Your task to perform on an android device: toggle show notifications on the lock screen Image 0: 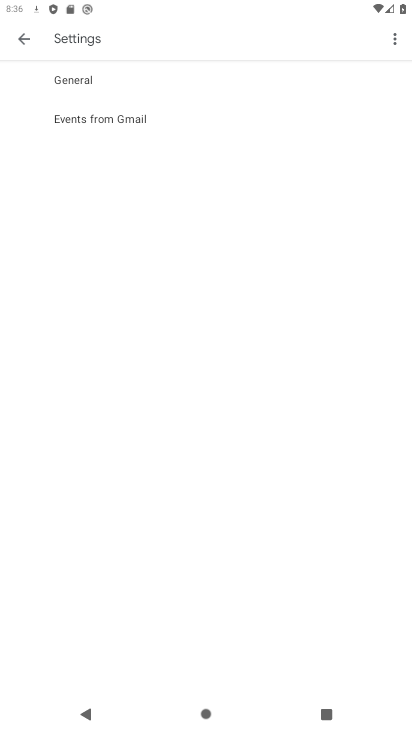
Step 0: press home button
Your task to perform on an android device: toggle show notifications on the lock screen Image 1: 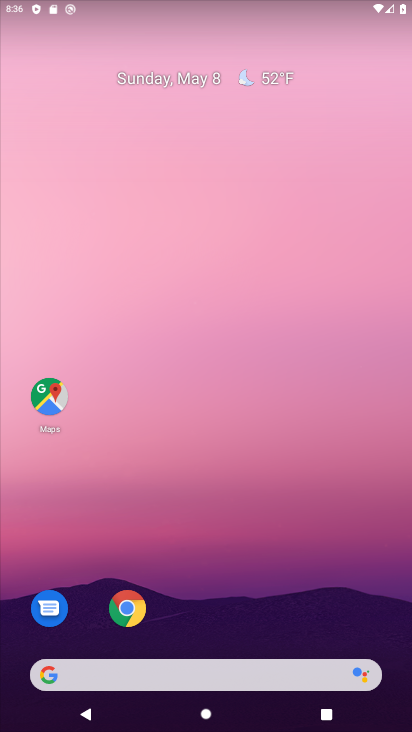
Step 1: drag from (201, 549) to (203, 4)
Your task to perform on an android device: toggle show notifications on the lock screen Image 2: 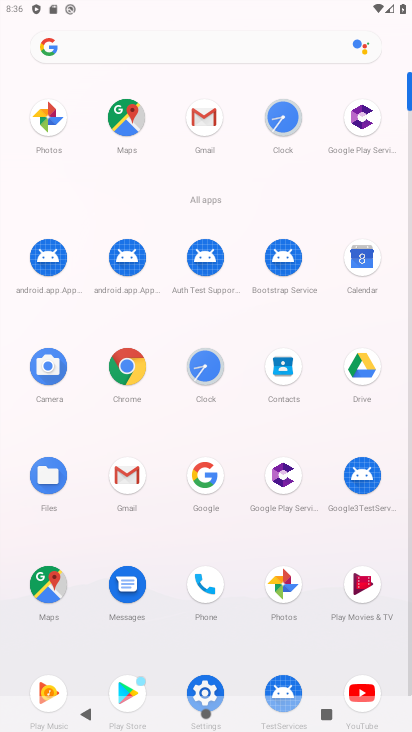
Step 2: drag from (170, 220) to (150, 74)
Your task to perform on an android device: toggle show notifications on the lock screen Image 3: 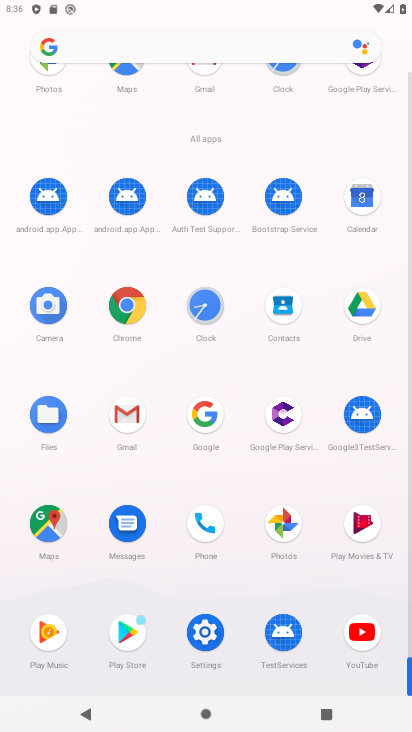
Step 3: click (211, 640)
Your task to perform on an android device: toggle show notifications on the lock screen Image 4: 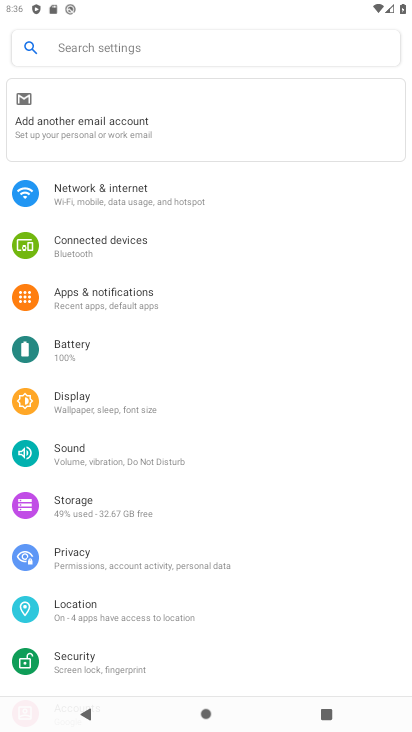
Step 4: click (143, 298)
Your task to perform on an android device: toggle show notifications on the lock screen Image 5: 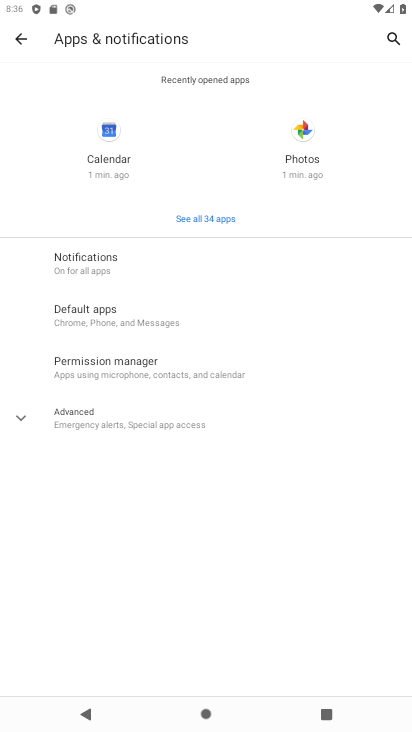
Step 5: click (113, 261)
Your task to perform on an android device: toggle show notifications on the lock screen Image 6: 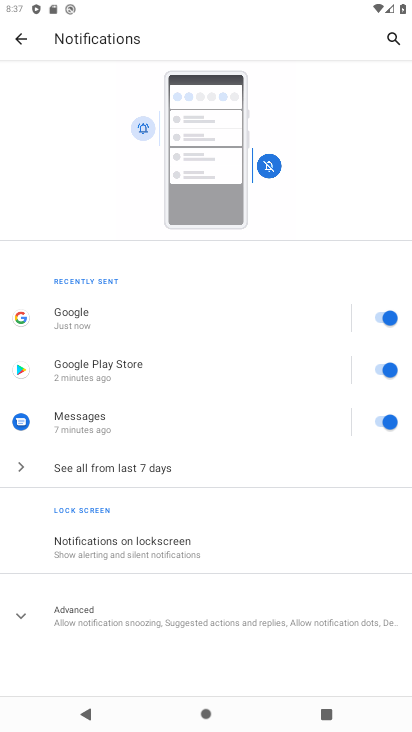
Step 6: click (112, 554)
Your task to perform on an android device: toggle show notifications on the lock screen Image 7: 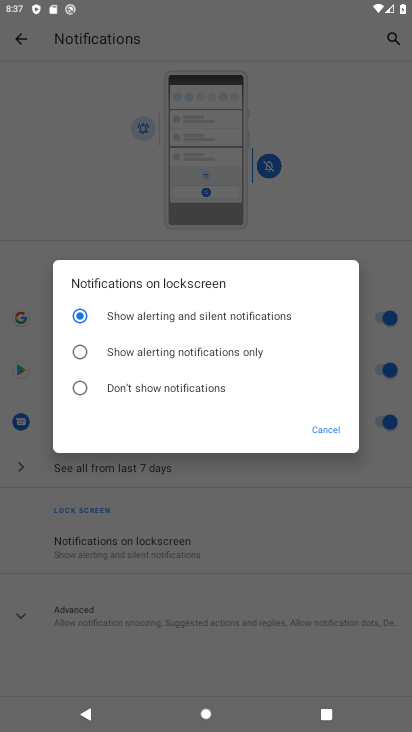
Step 7: click (184, 390)
Your task to perform on an android device: toggle show notifications on the lock screen Image 8: 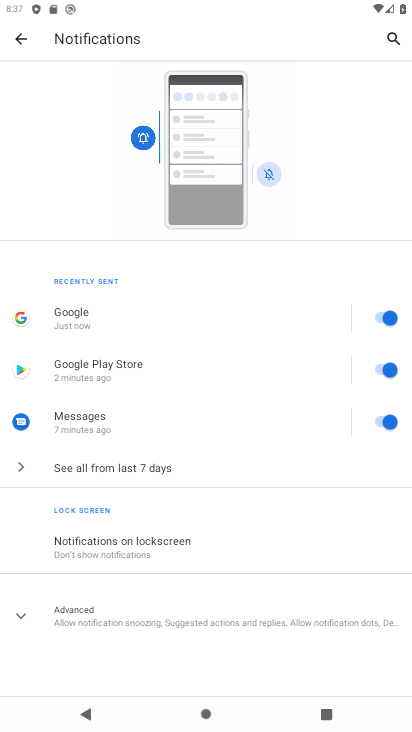
Step 8: task complete